Your task to perform on an android device: uninstall "Google Home" Image 0: 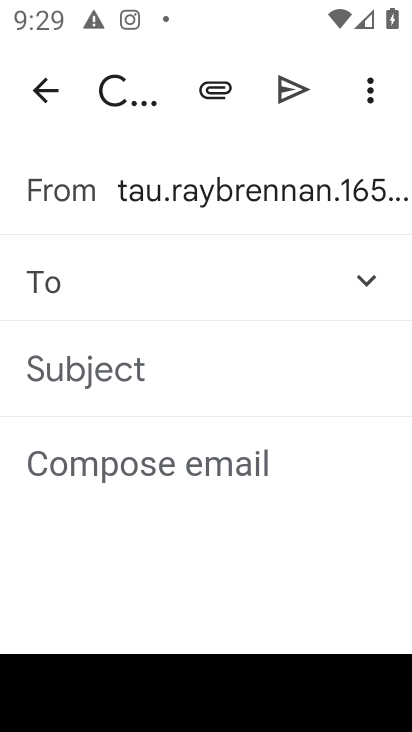
Step 0: press home button
Your task to perform on an android device: uninstall "Google Home" Image 1: 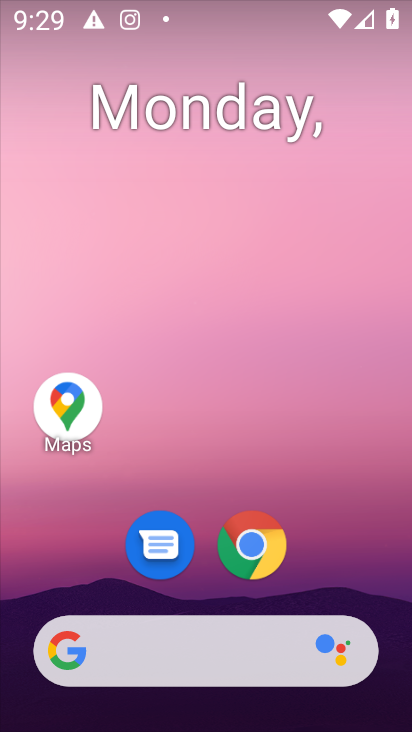
Step 1: drag from (355, 560) to (366, 71)
Your task to perform on an android device: uninstall "Google Home" Image 2: 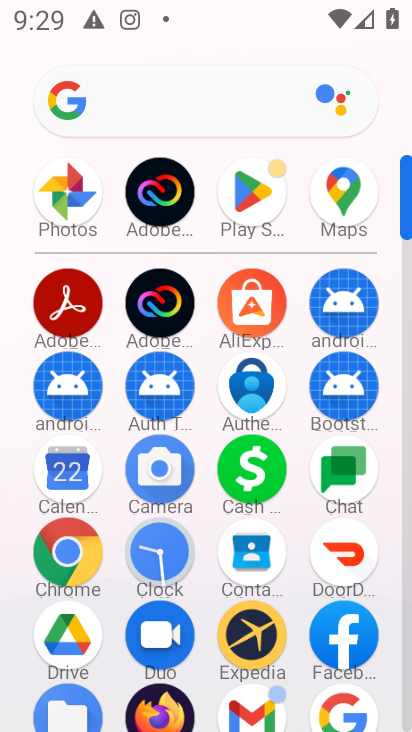
Step 2: click (269, 188)
Your task to perform on an android device: uninstall "Google Home" Image 3: 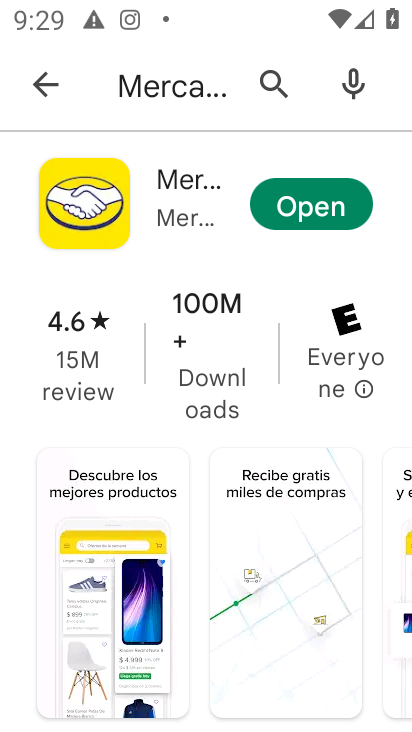
Step 3: press back button
Your task to perform on an android device: uninstall "Google Home" Image 4: 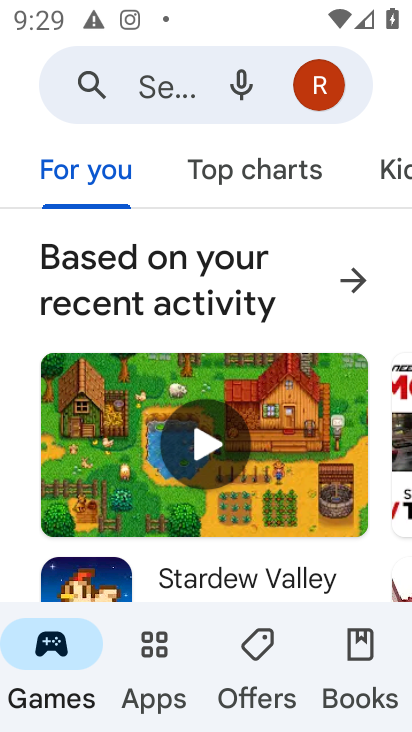
Step 4: click (171, 86)
Your task to perform on an android device: uninstall "Google Home" Image 5: 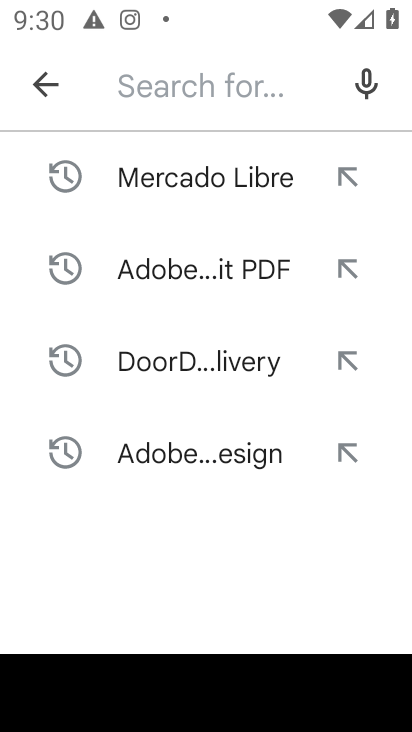
Step 5: type "google home"
Your task to perform on an android device: uninstall "Google Home" Image 6: 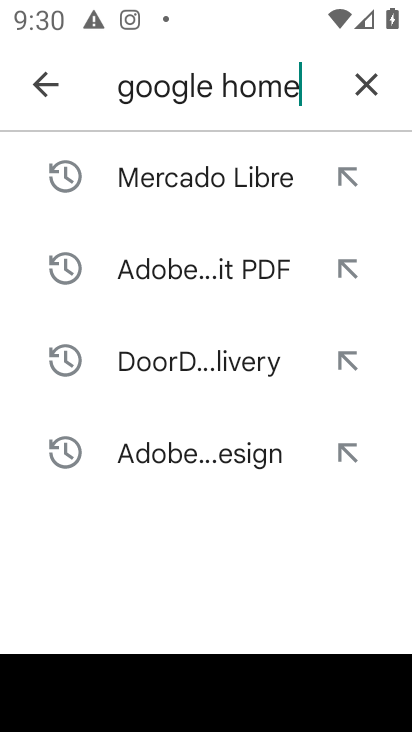
Step 6: press enter
Your task to perform on an android device: uninstall "Google Home" Image 7: 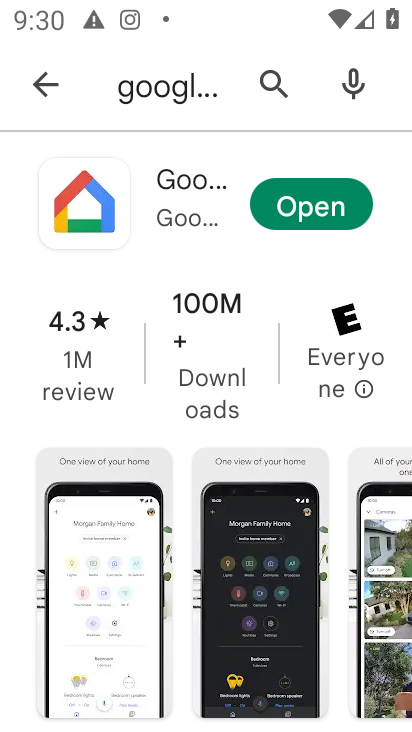
Step 7: task complete